Your task to perform on an android device: change keyboard looks Image 0: 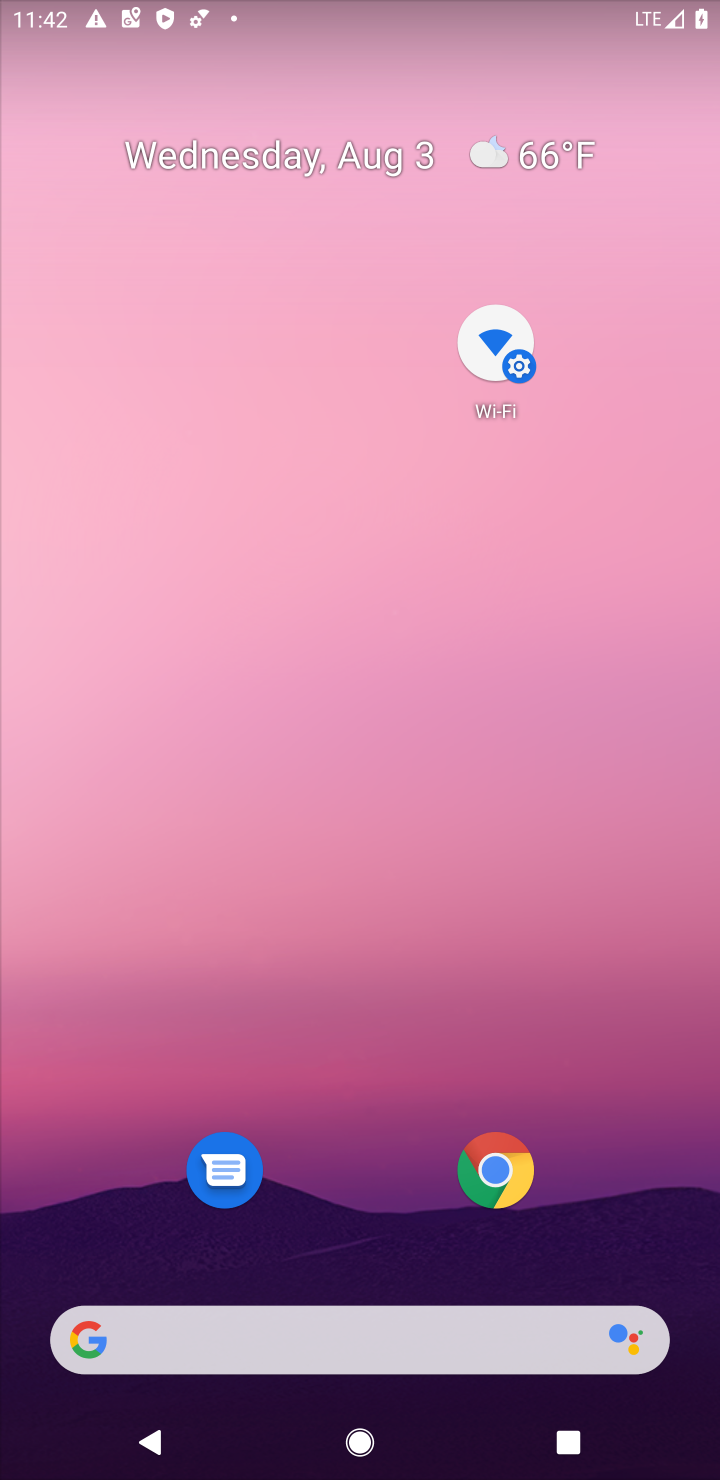
Step 0: click (528, 435)
Your task to perform on an android device: change keyboard looks Image 1: 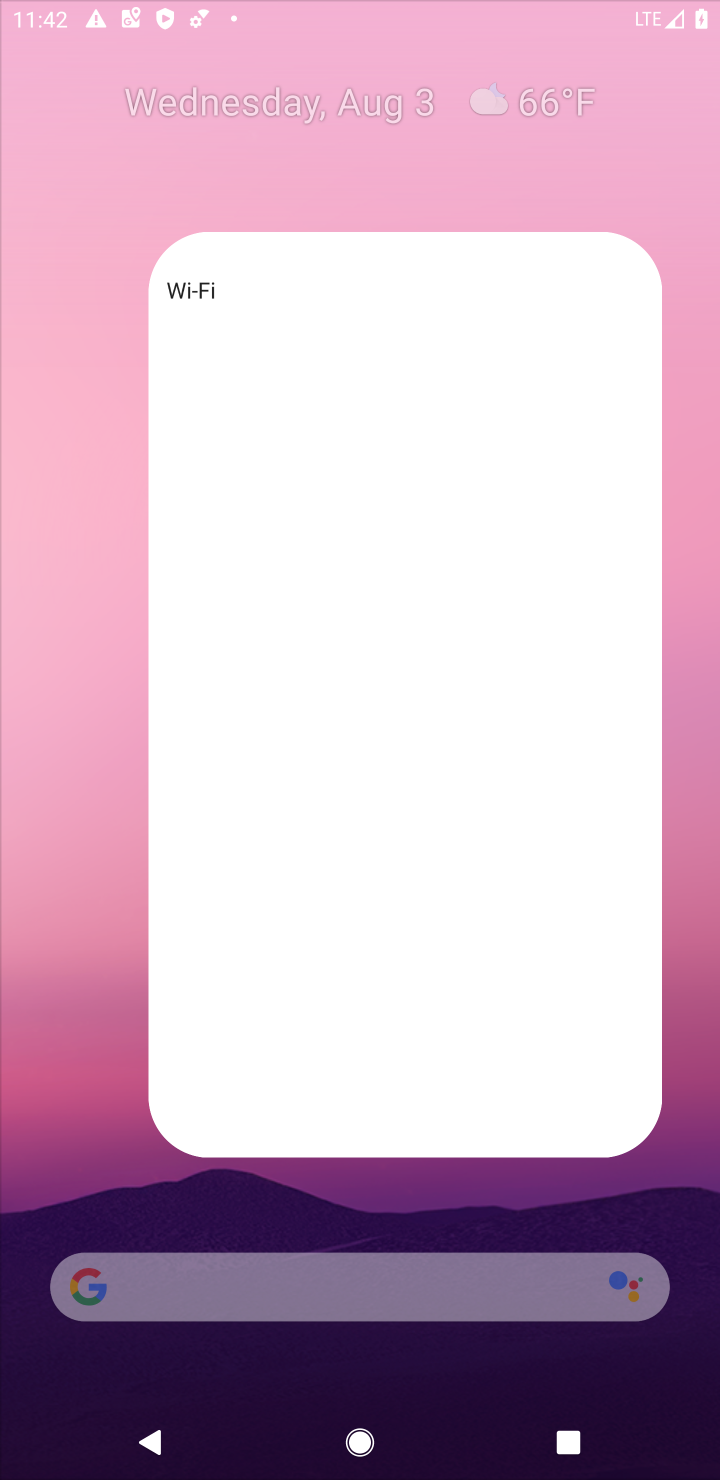
Step 1: drag from (365, 1193) to (391, 231)
Your task to perform on an android device: change keyboard looks Image 2: 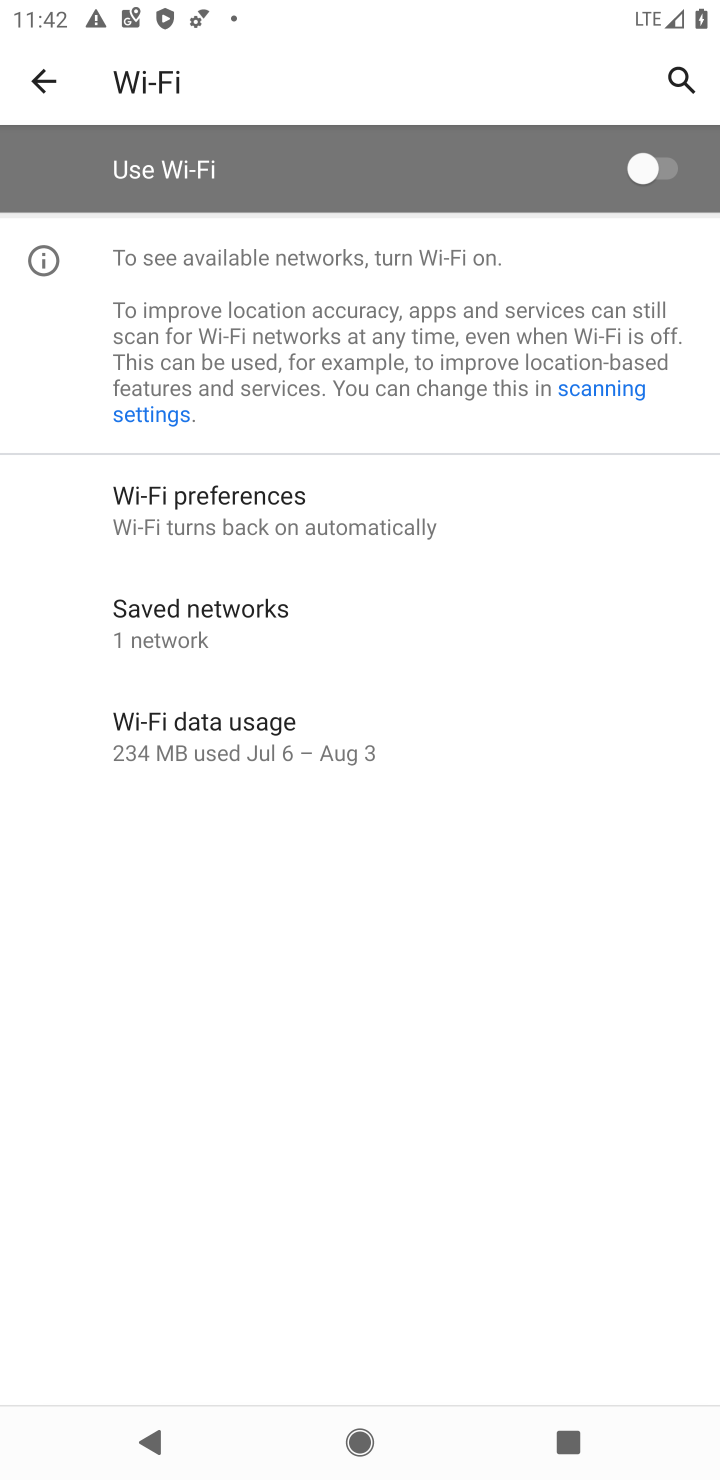
Step 2: press home button
Your task to perform on an android device: change keyboard looks Image 3: 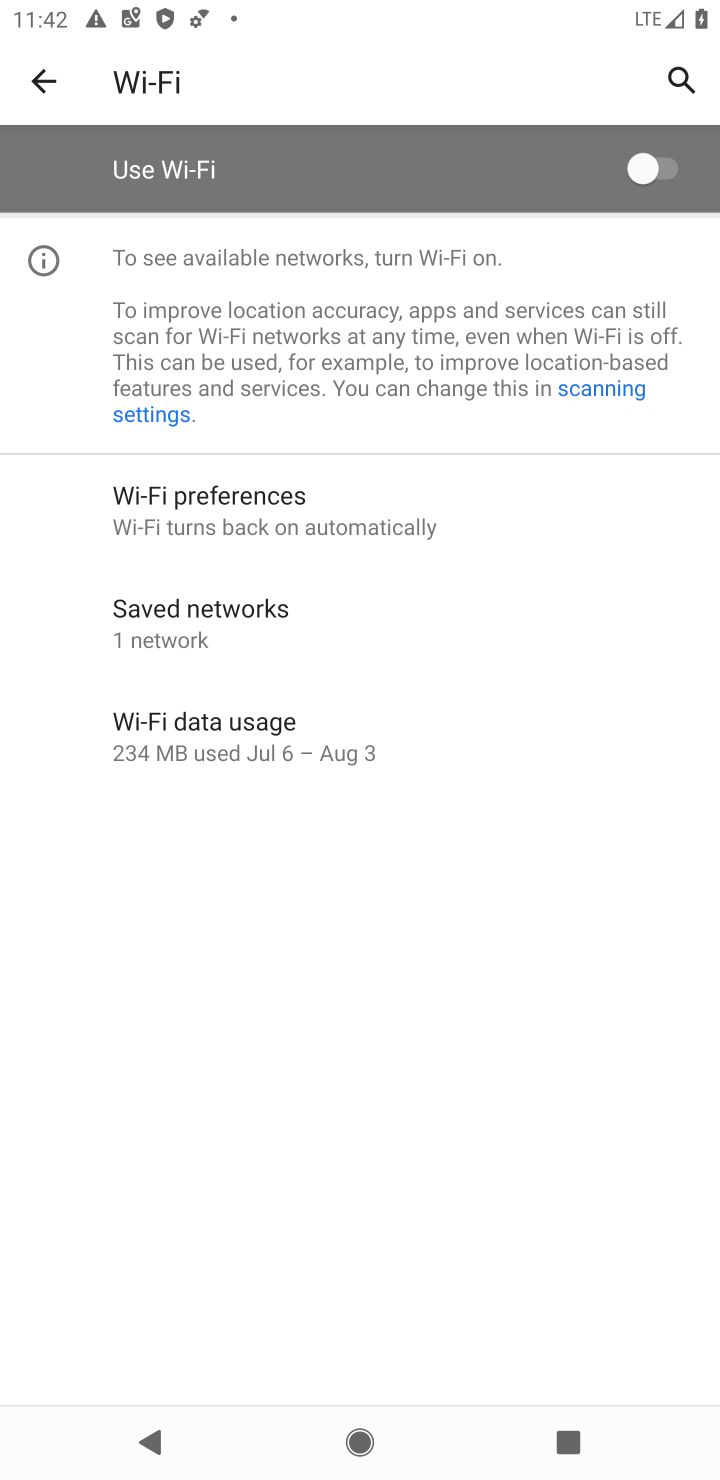
Step 3: click (380, 264)
Your task to perform on an android device: change keyboard looks Image 4: 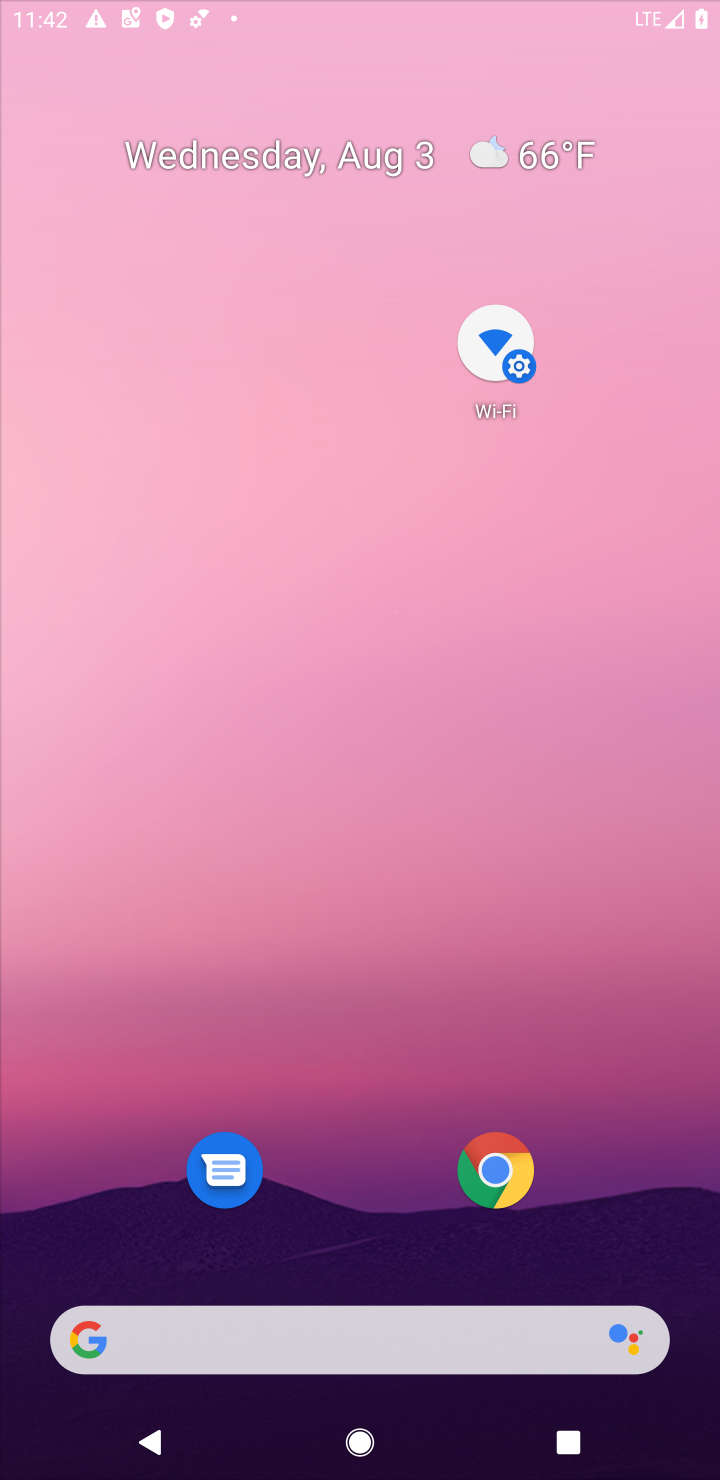
Step 4: drag from (429, 937) to (426, 212)
Your task to perform on an android device: change keyboard looks Image 5: 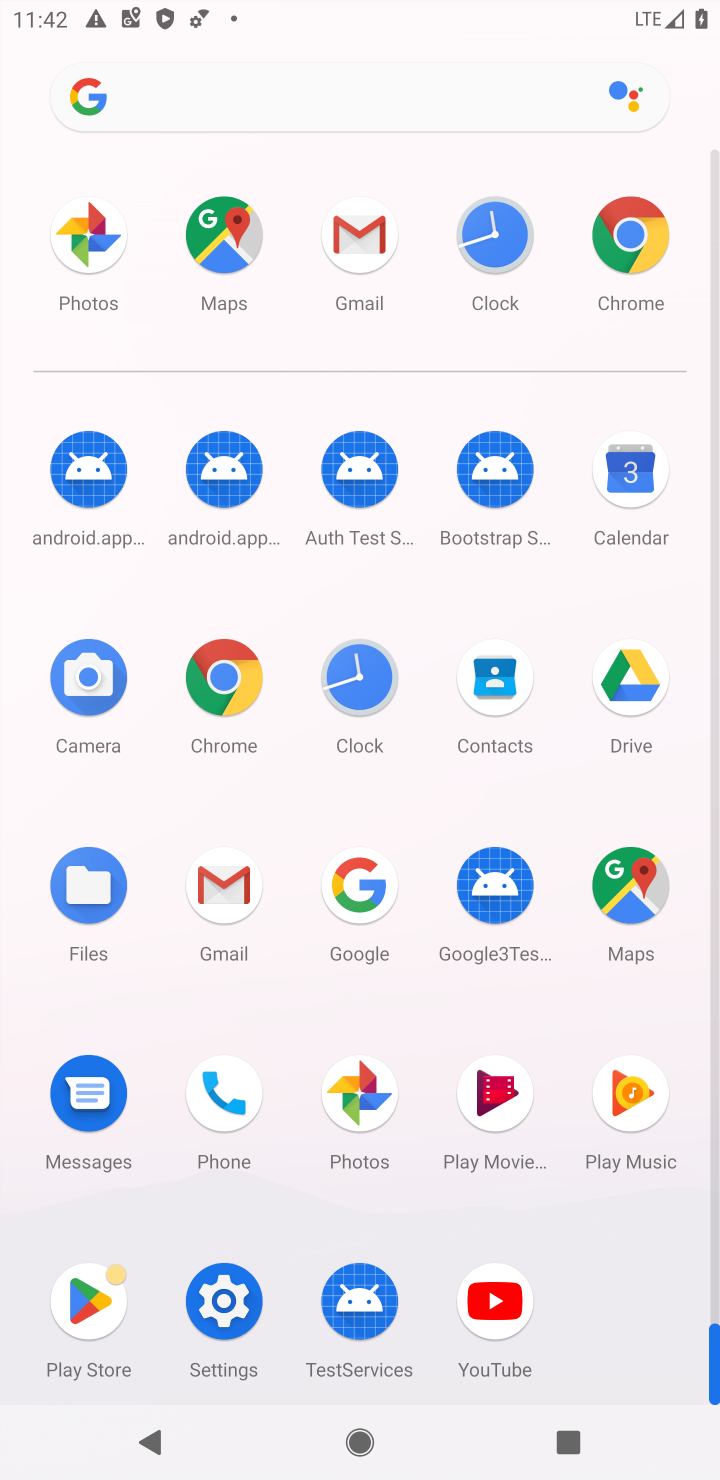
Step 5: drag from (458, 765) to (487, 382)
Your task to perform on an android device: change keyboard looks Image 6: 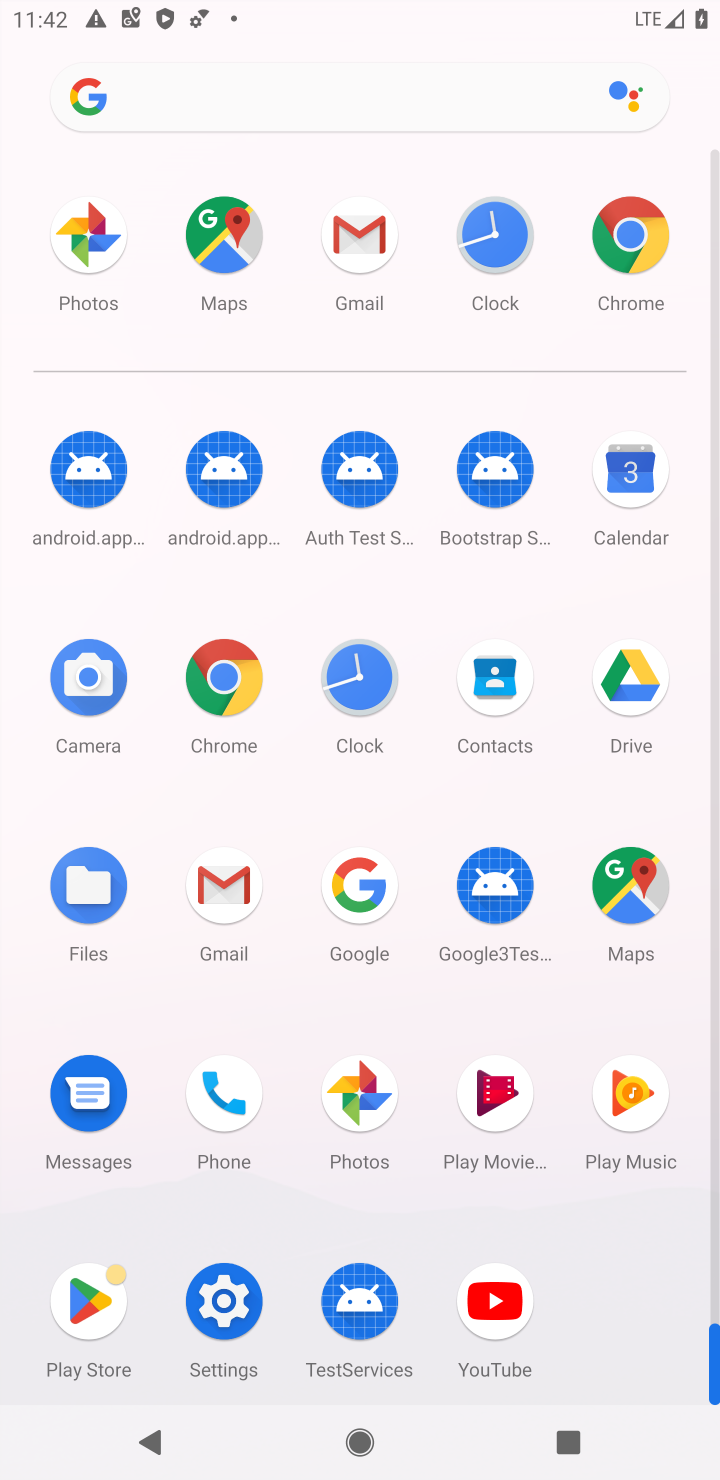
Step 6: click (210, 1317)
Your task to perform on an android device: change keyboard looks Image 7: 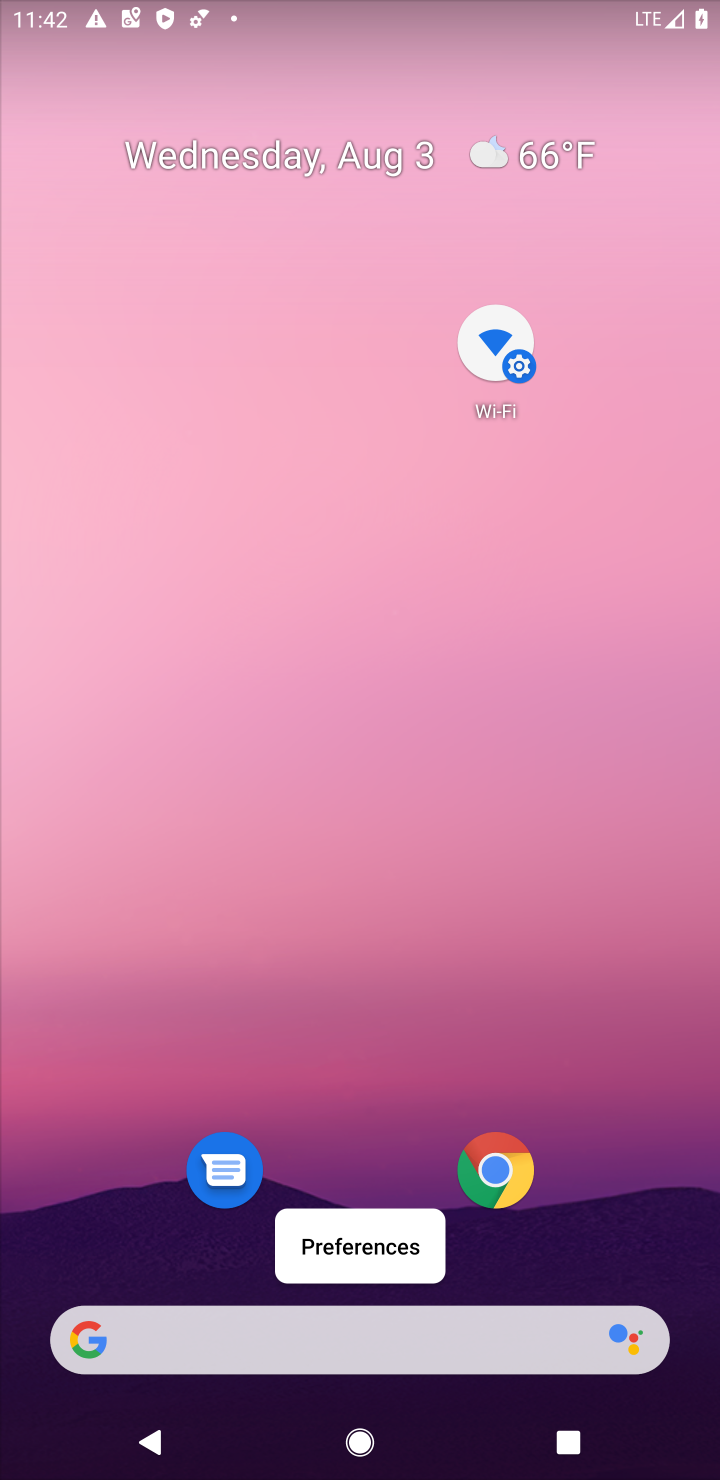
Step 7: drag from (388, 817) to (436, 298)
Your task to perform on an android device: change keyboard looks Image 8: 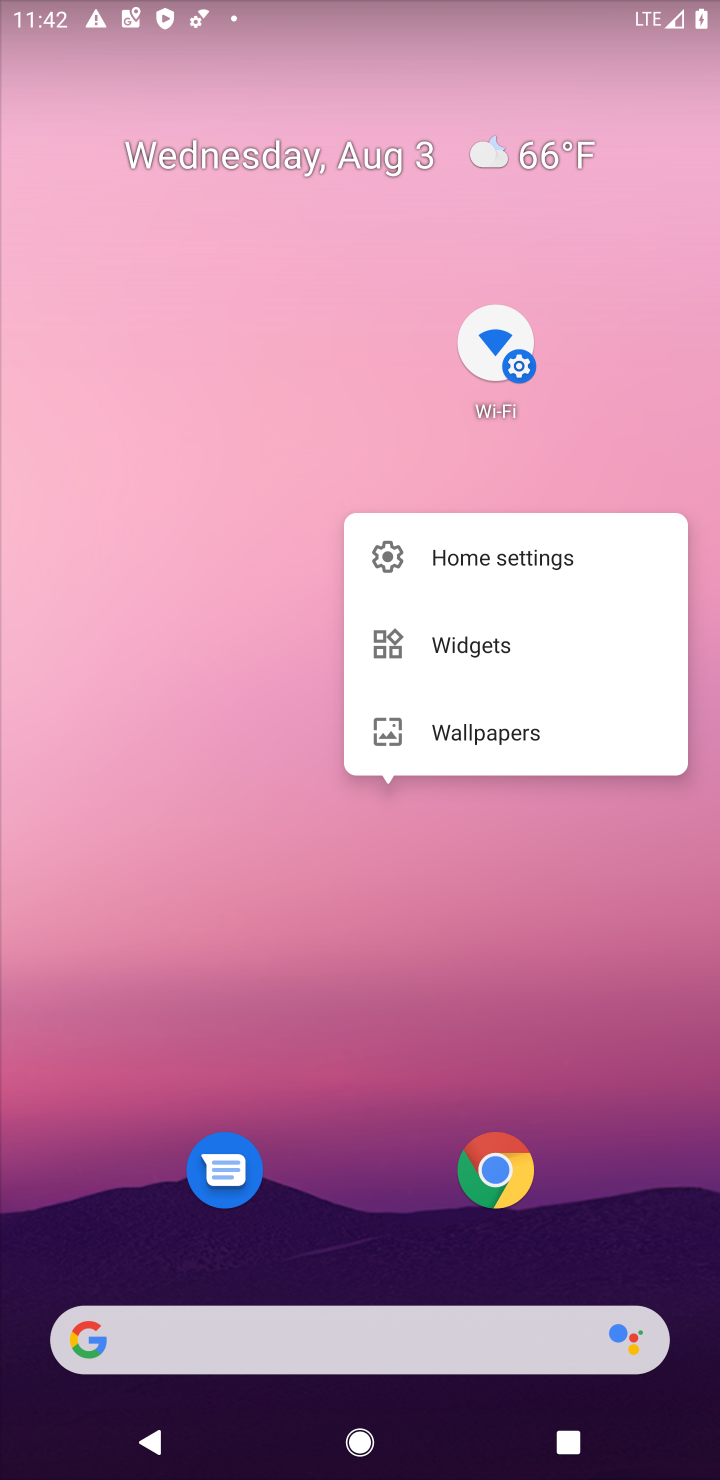
Step 8: drag from (388, 1182) to (398, 309)
Your task to perform on an android device: change keyboard looks Image 9: 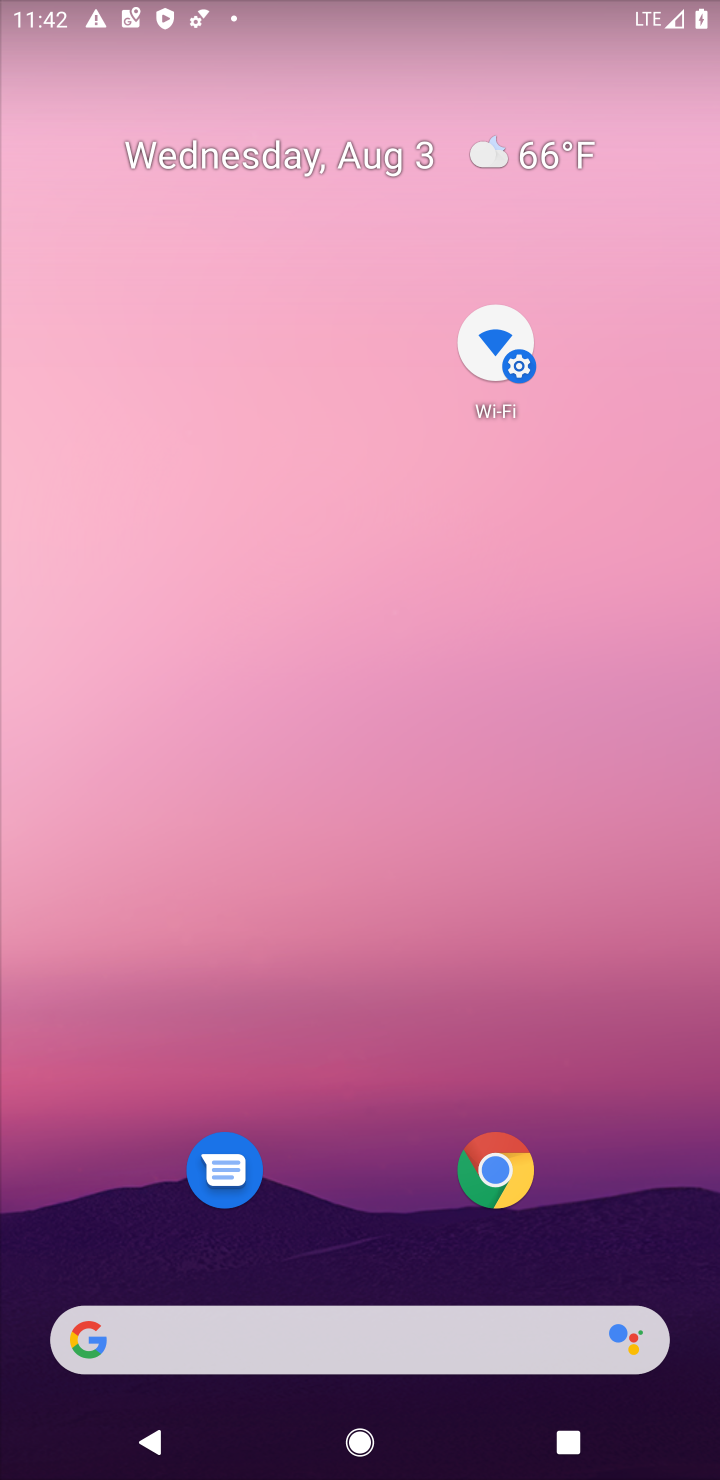
Step 9: drag from (375, 1089) to (296, 112)
Your task to perform on an android device: change keyboard looks Image 10: 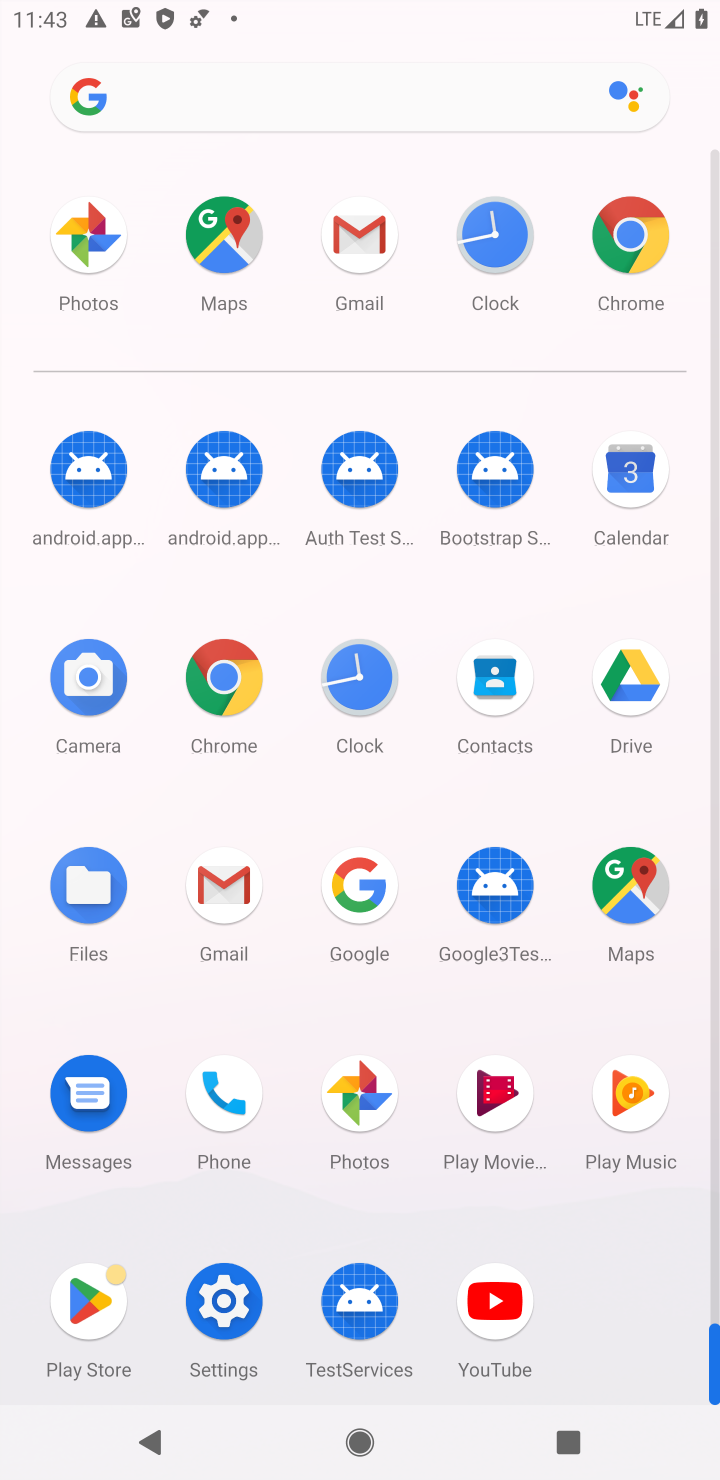
Step 10: click (199, 1300)
Your task to perform on an android device: change keyboard looks Image 11: 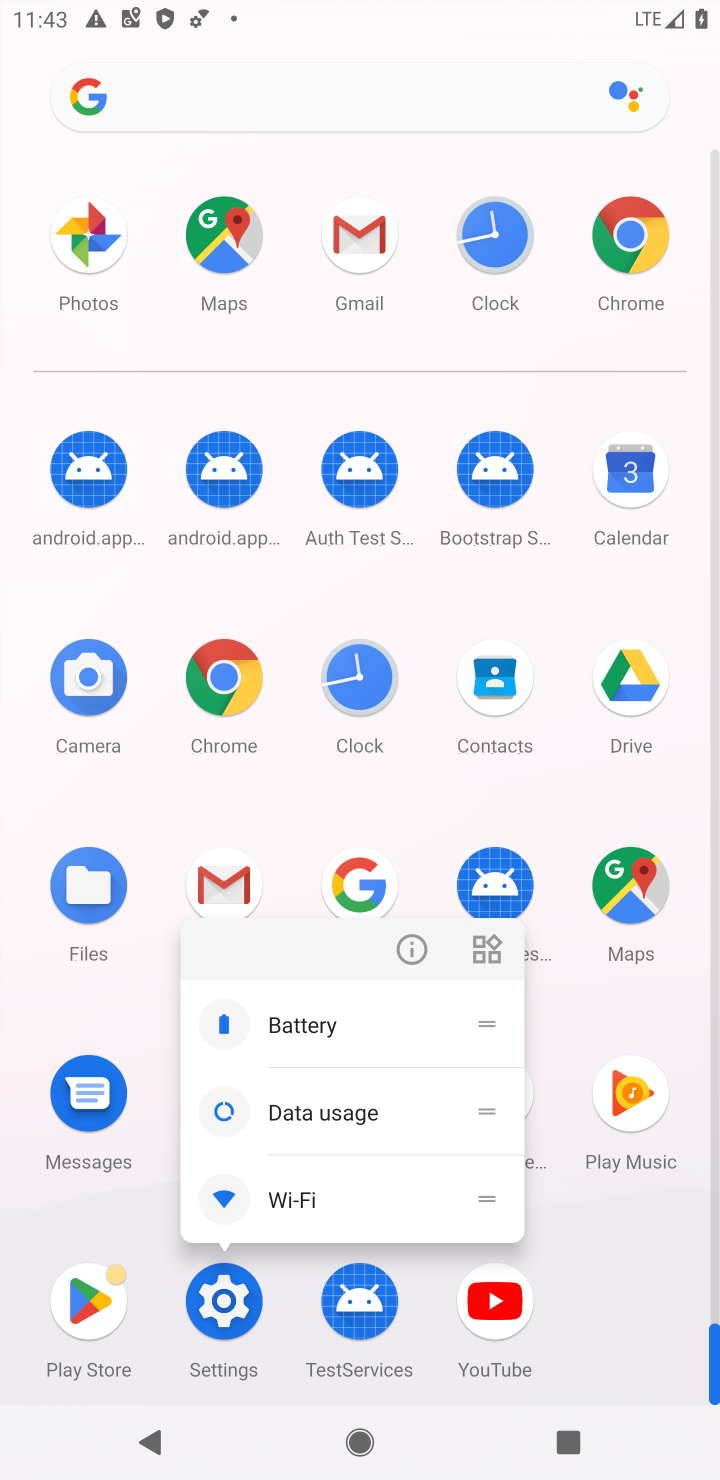
Step 11: click (421, 960)
Your task to perform on an android device: change keyboard looks Image 12: 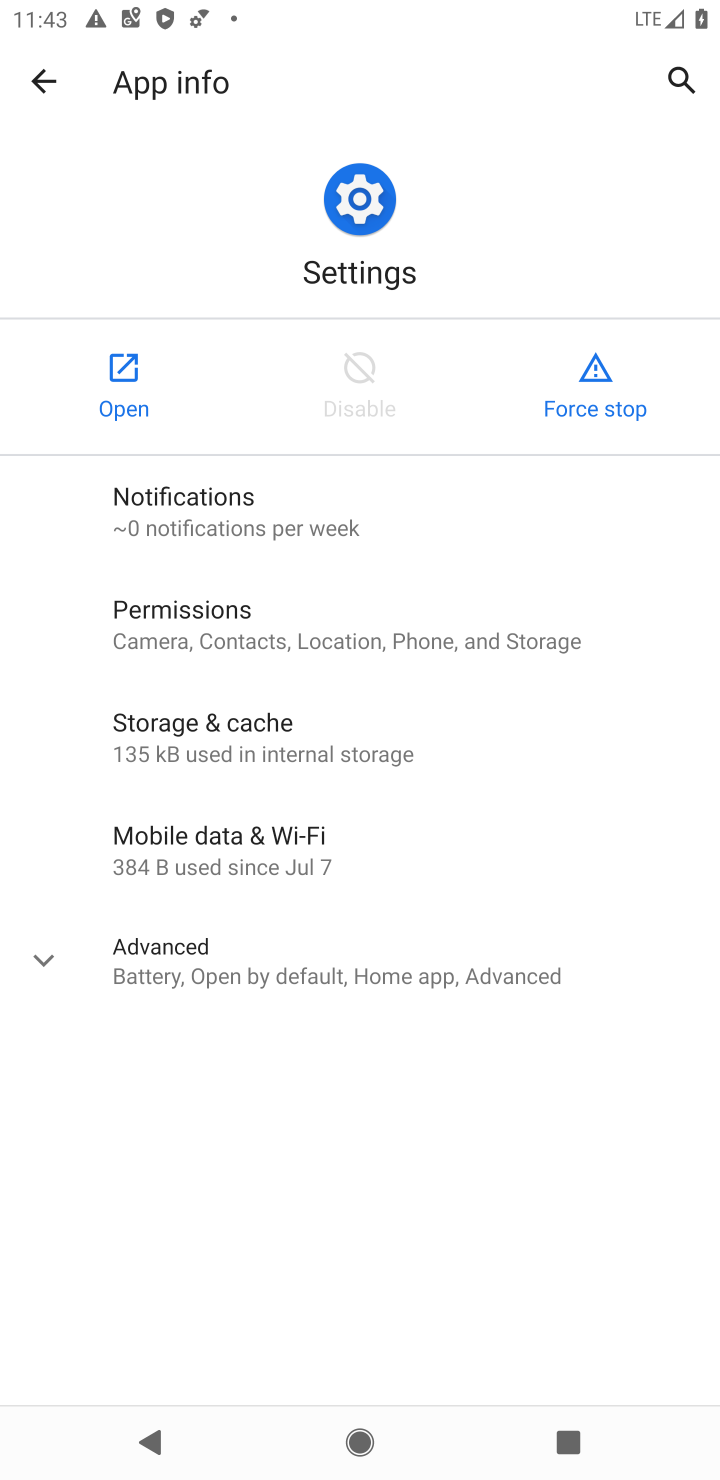
Step 12: click (143, 388)
Your task to perform on an android device: change keyboard looks Image 13: 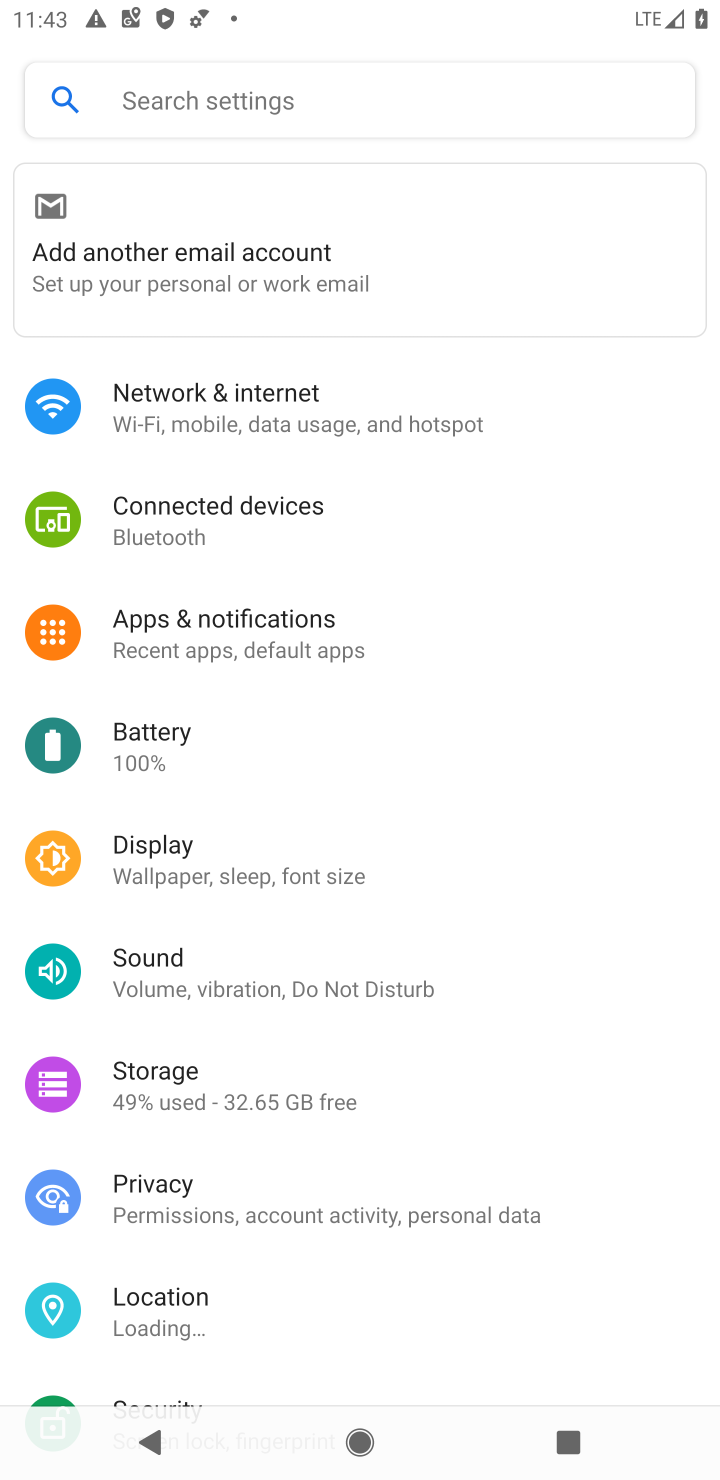
Step 13: drag from (368, 754) to (515, 252)
Your task to perform on an android device: change keyboard looks Image 14: 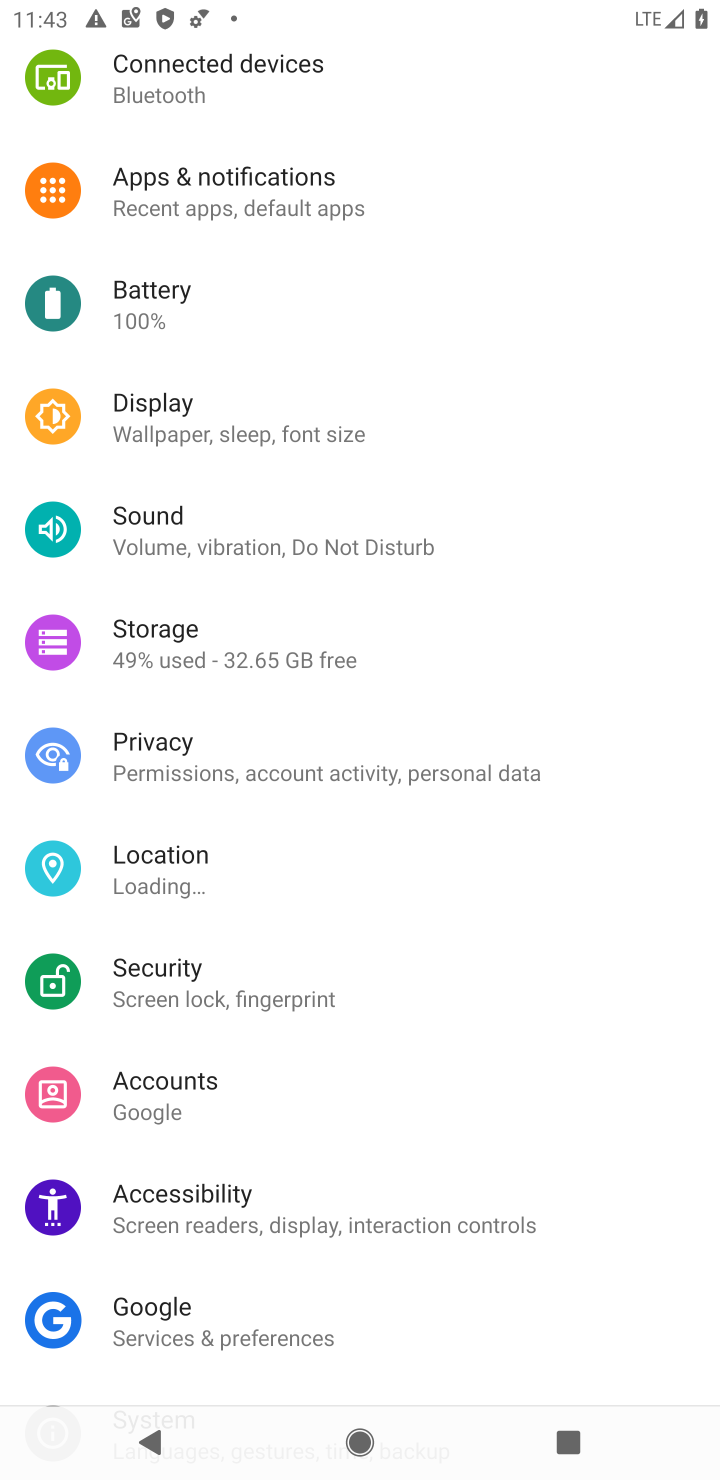
Step 14: drag from (225, 1151) to (434, 350)
Your task to perform on an android device: change keyboard looks Image 15: 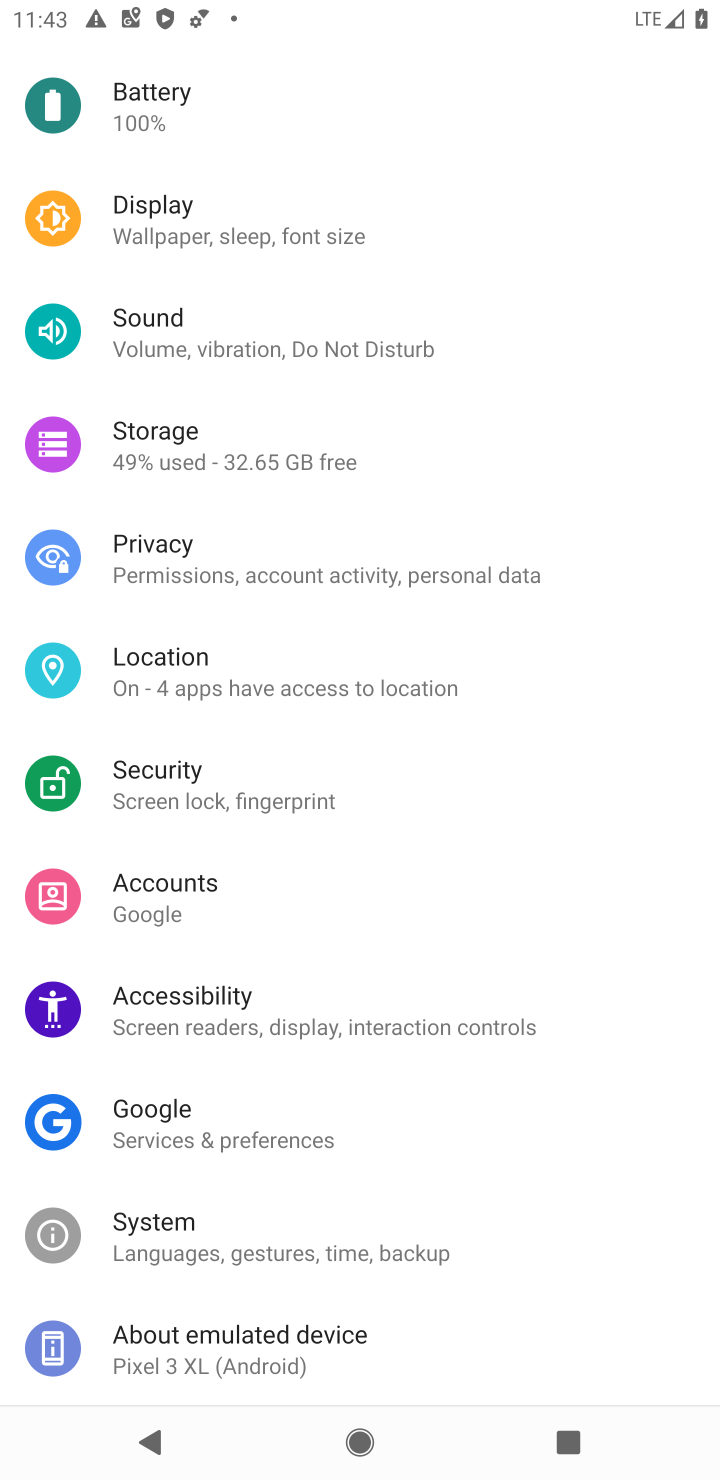
Step 15: click (245, 1242)
Your task to perform on an android device: change keyboard looks Image 16: 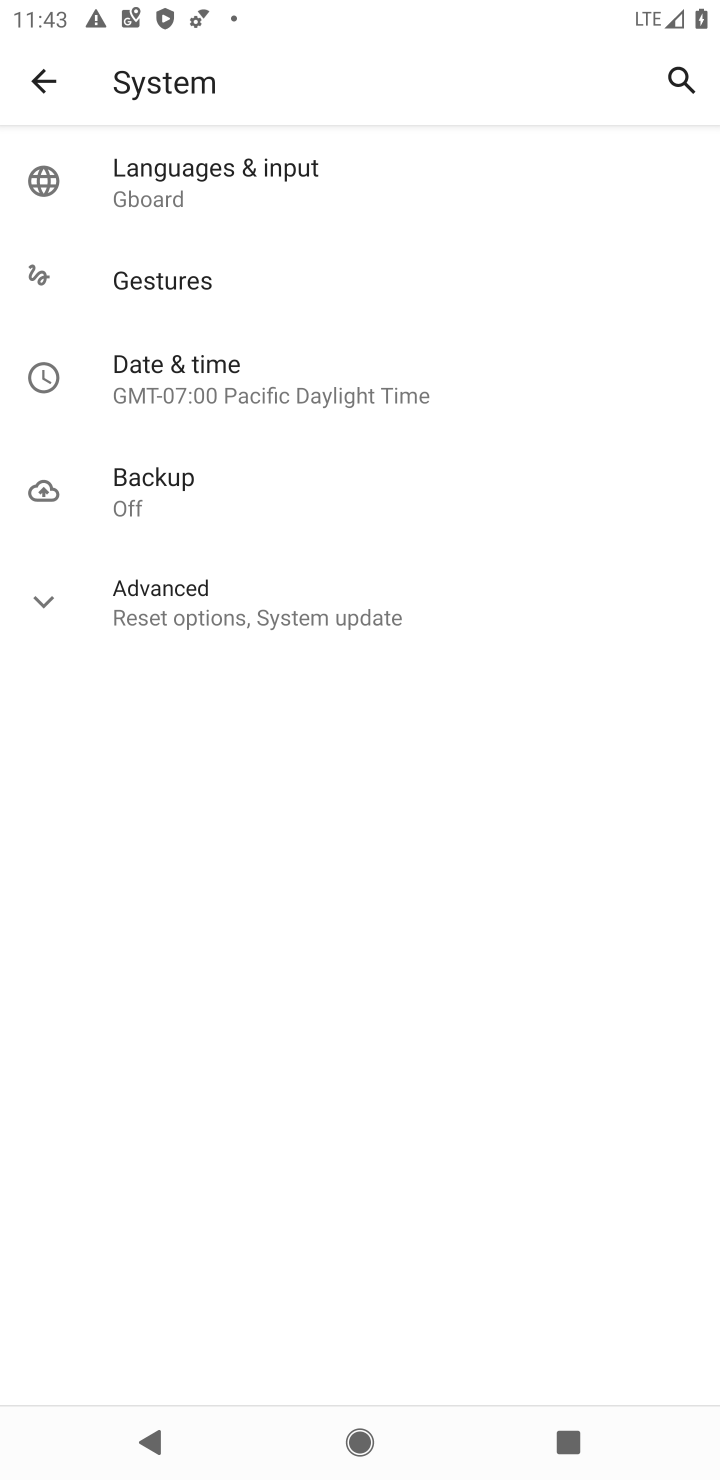
Step 16: click (260, 153)
Your task to perform on an android device: change keyboard looks Image 17: 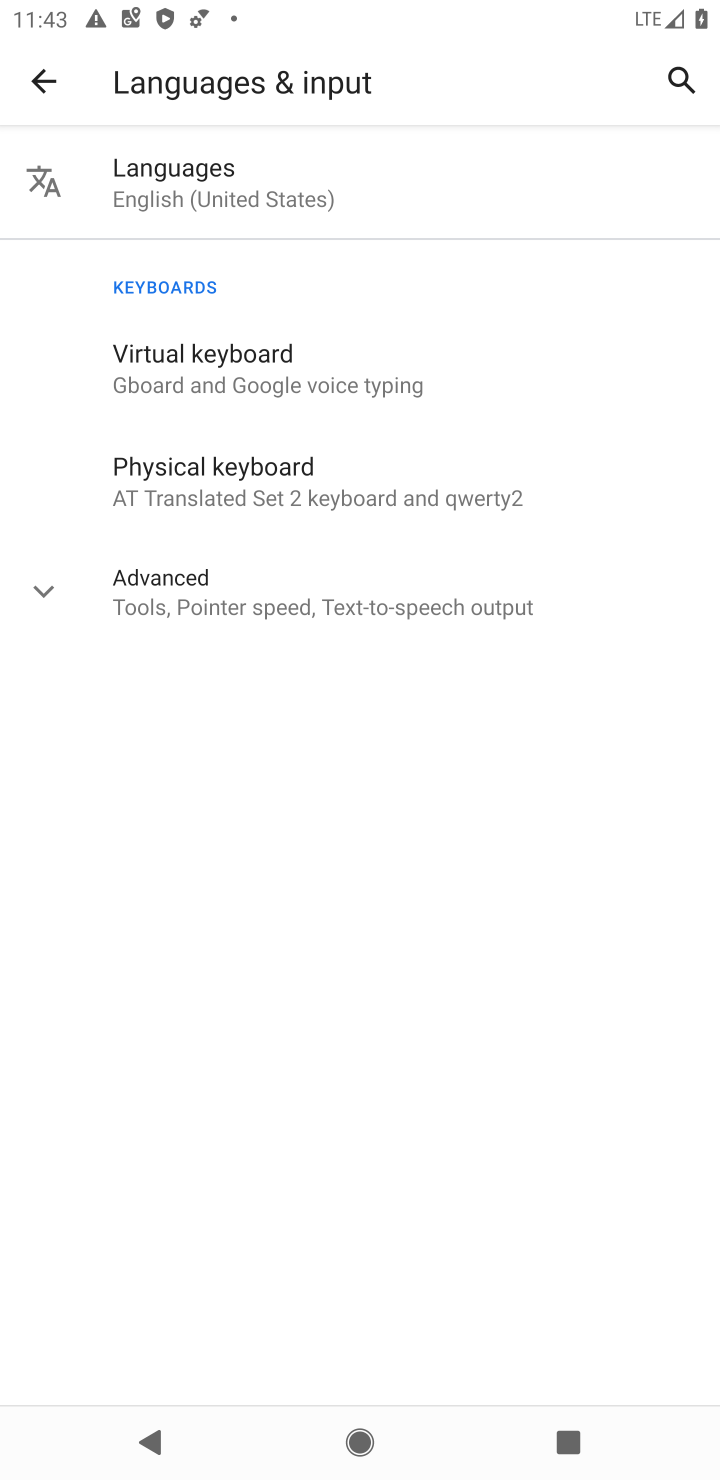
Step 17: click (204, 394)
Your task to perform on an android device: change keyboard looks Image 18: 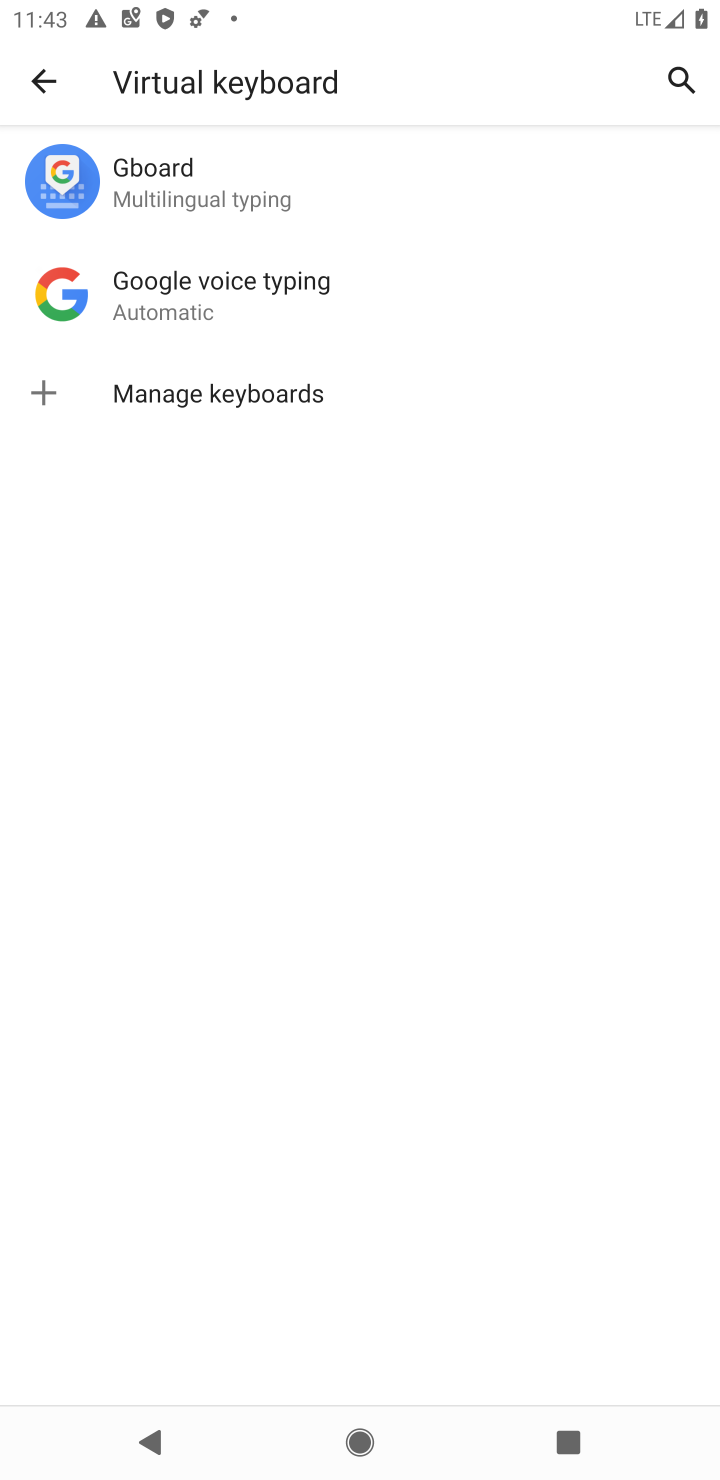
Step 18: click (200, 212)
Your task to perform on an android device: change keyboard looks Image 19: 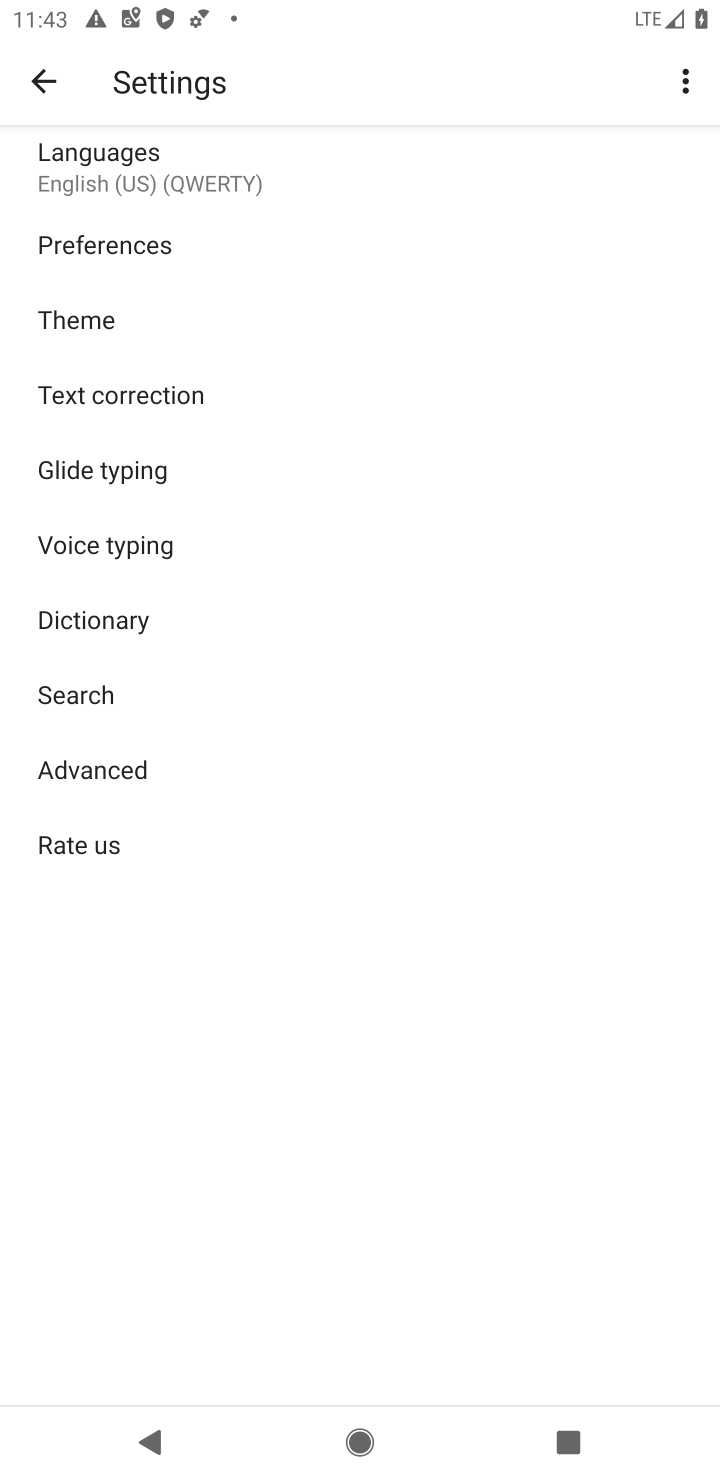
Step 19: click (96, 314)
Your task to perform on an android device: change keyboard looks Image 20: 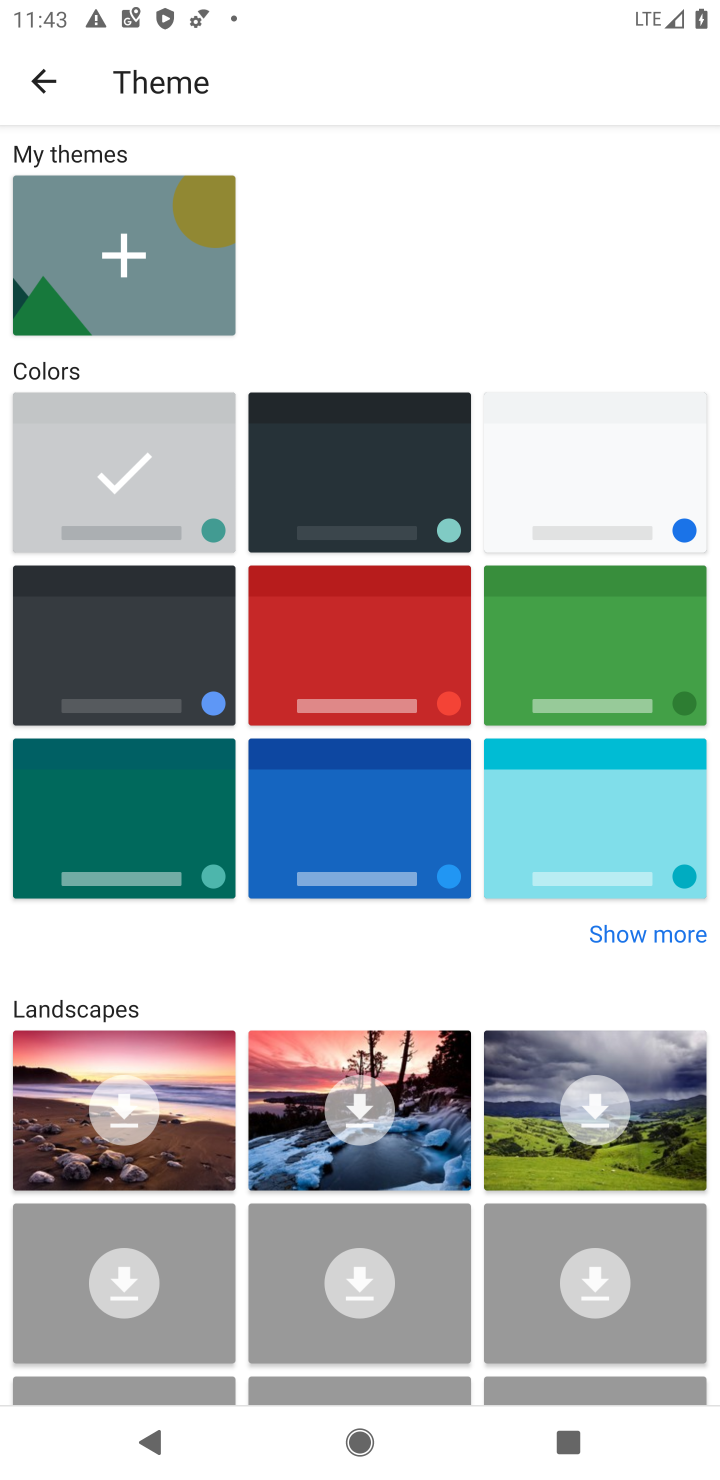
Step 20: click (299, 681)
Your task to perform on an android device: change keyboard looks Image 21: 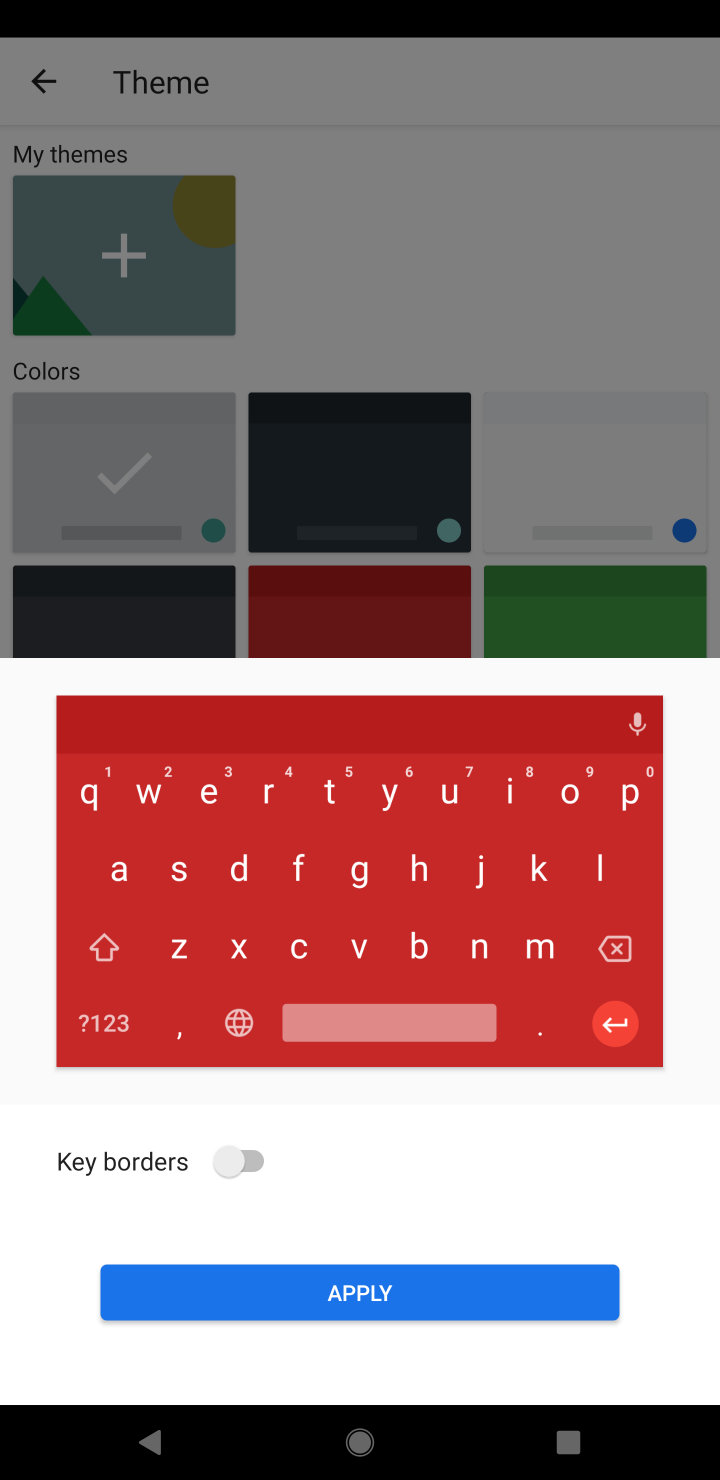
Step 21: click (398, 1277)
Your task to perform on an android device: change keyboard looks Image 22: 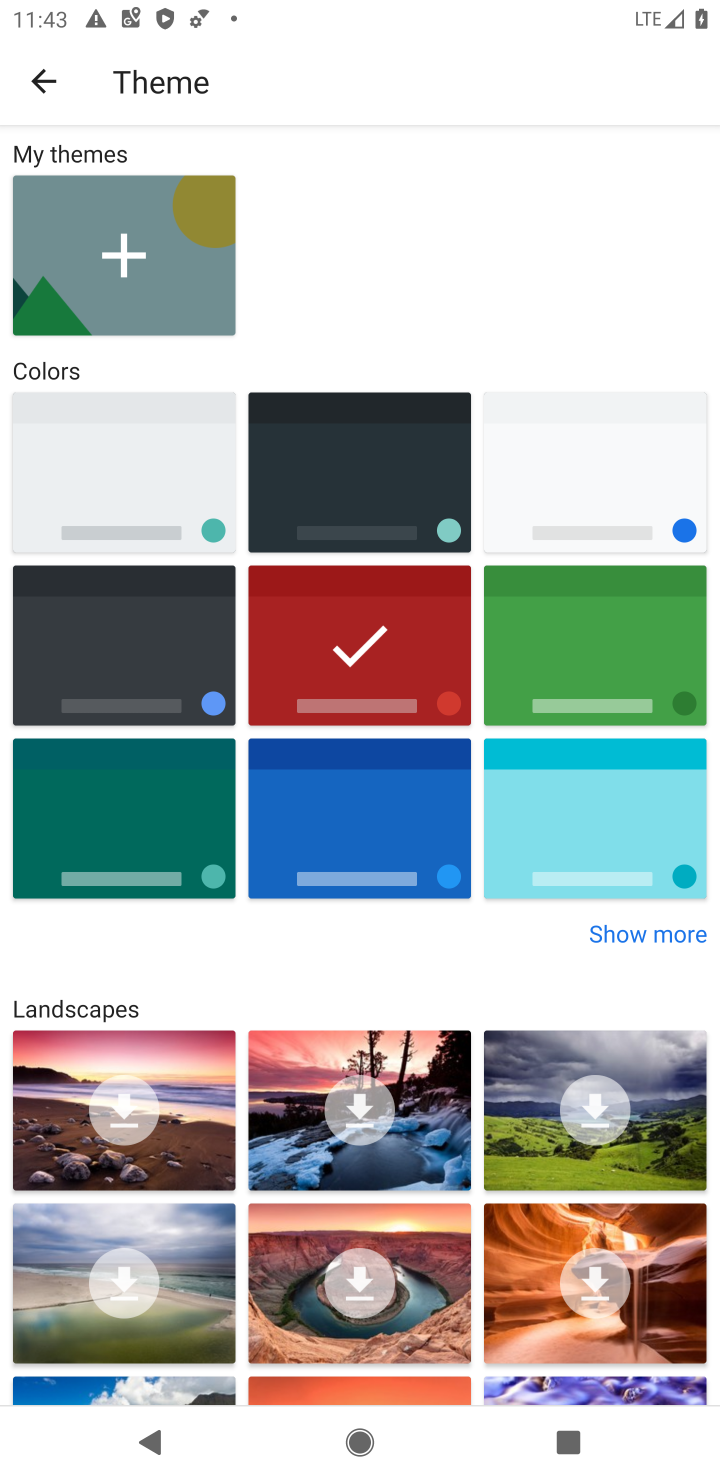
Step 22: task complete